Your task to perform on an android device: turn pop-ups off in chrome Image 0: 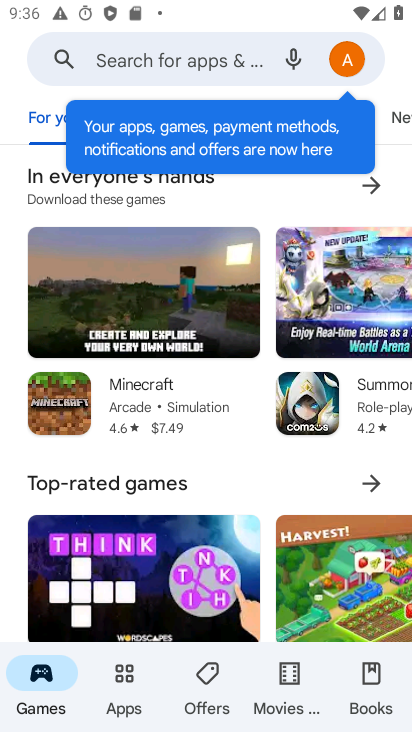
Step 0: press home button
Your task to perform on an android device: turn pop-ups off in chrome Image 1: 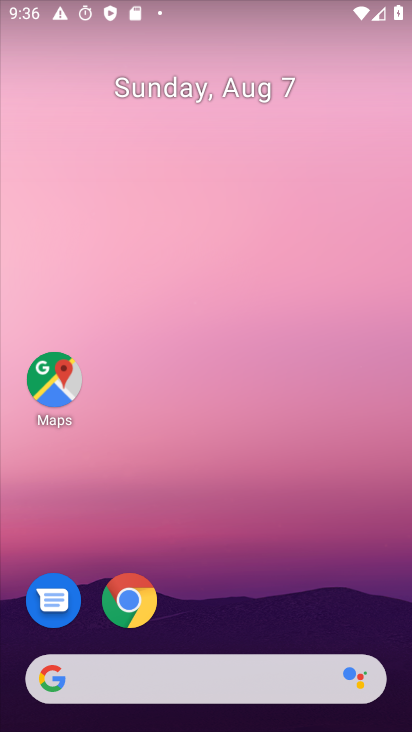
Step 1: drag from (185, 513) to (258, 170)
Your task to perform on an android device: turn pop-ups off in chrome Image 2: 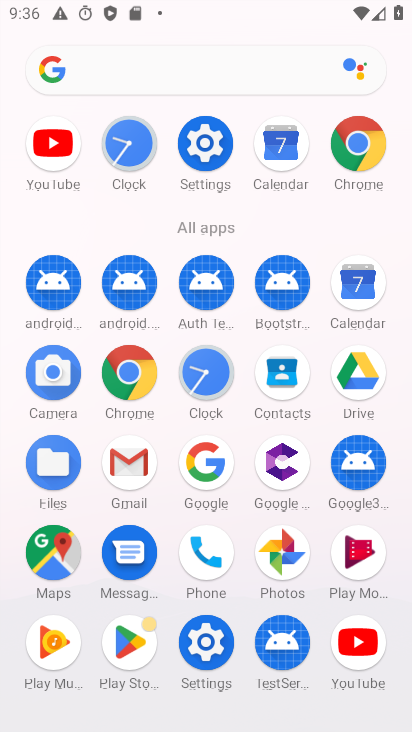
Step 2: click (356, 178)
Your task to perform on an android device: turn pop-ups off in chrome Image 3: 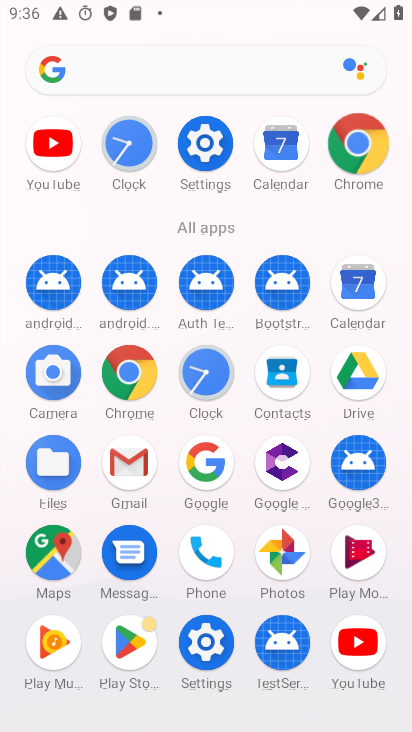
Step 3: click (356, 178)
Your task to perform on an android device: turn pop-ups off in chrome Image 4: 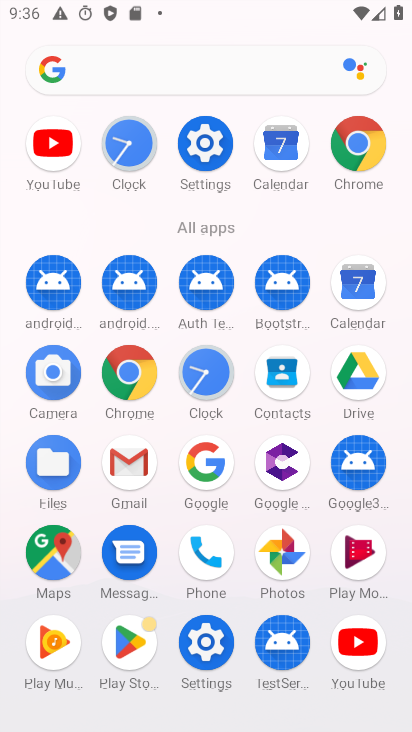
Step 4: click (348, 160)
Your task to perform on an android device: turn pop-ups off in chrome Image 5: 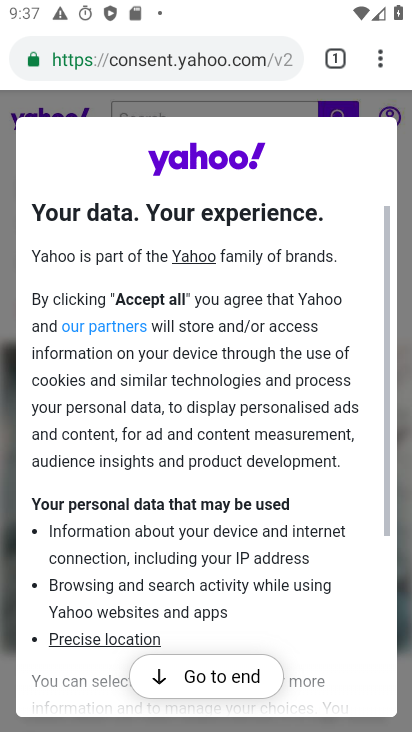
Step 5: click (386, 63)
Your task to perform on an android device: turn pop-ups off in chrome Image 6: 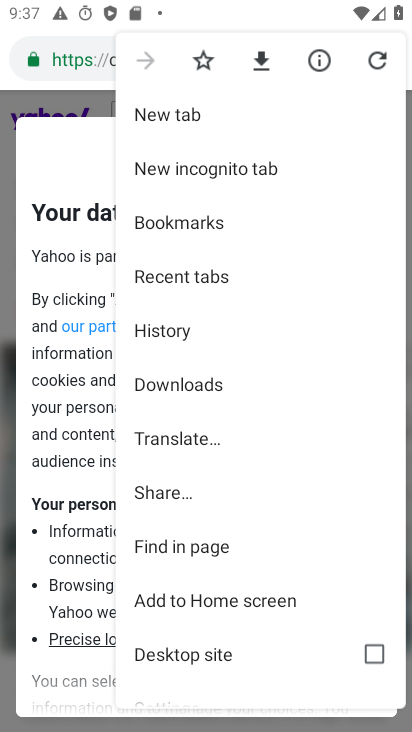
Step 6: drag from (185, 553) to (235, 216)
Your task to perform on an android device: turn pop-ups off in chrome Image 7: 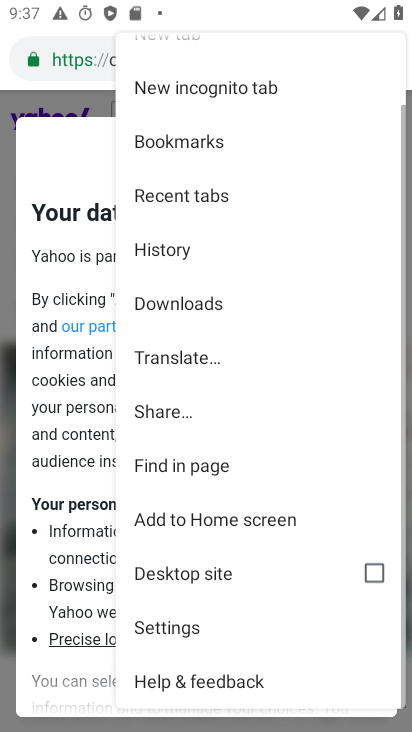
Step 7: click (179, 629)
Your task to perform on an android device: turn pop-ups off in chrome Image 8: 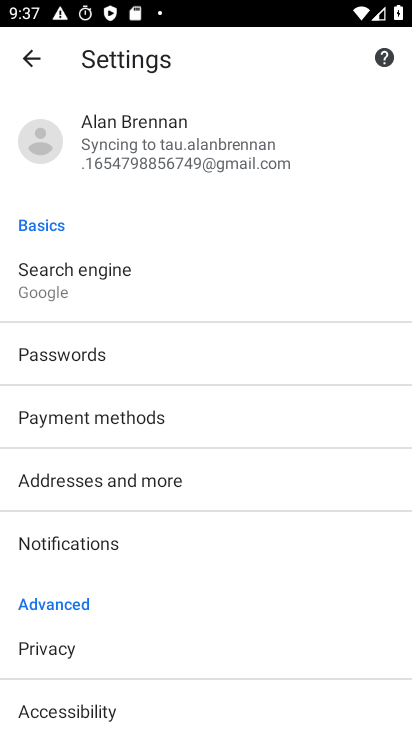
Step 8: drag from (129, 520) to (188, 154)
Your task to perform on an android device: turn pop-ups off in chrome Image 9: 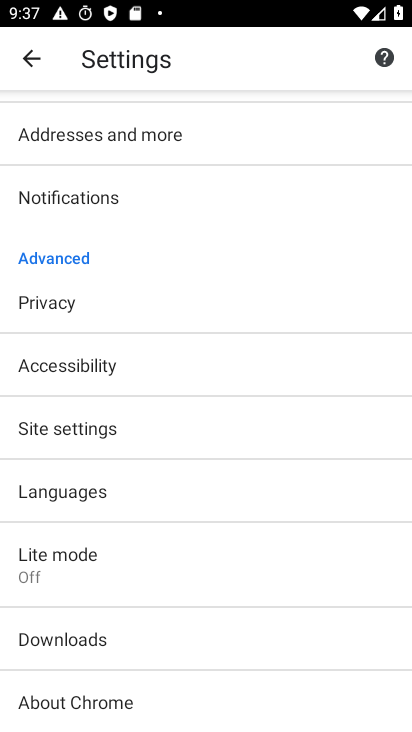
Step 9: click (84, 421)
Your task to perform on an android device: turn pop-ups off in chrome Image 10: 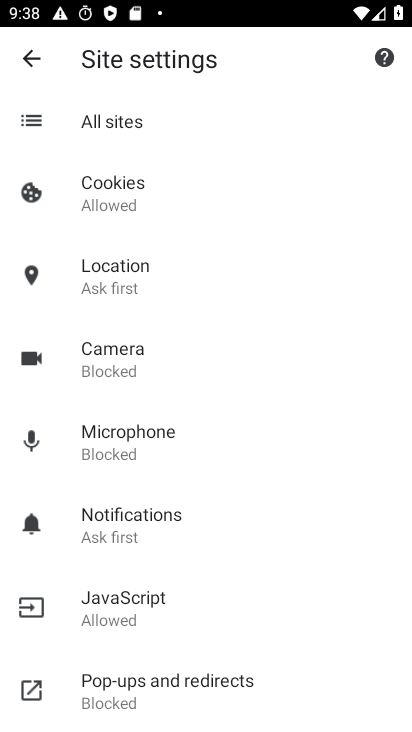
Step 10: drag from (150, 557) to (177, 302)
Your task to perform on an android device: turn pop-ups off in chrome Image 11: 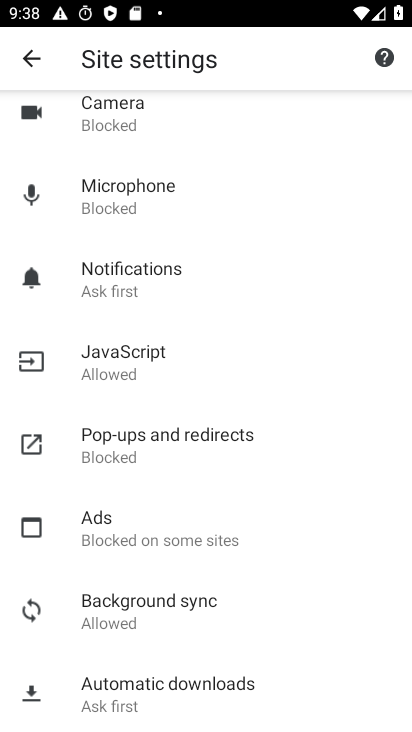
Step 11: click (170, 448)
Your task to perform on an android device: turn pop-ups off in chrome Image 12: 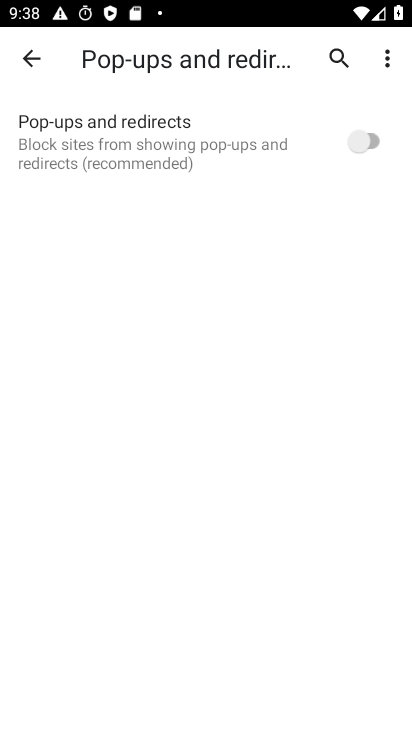
Step 12: task complete